Your task to perform on an android device: Show me productivity apps on the Play Store Image 0: 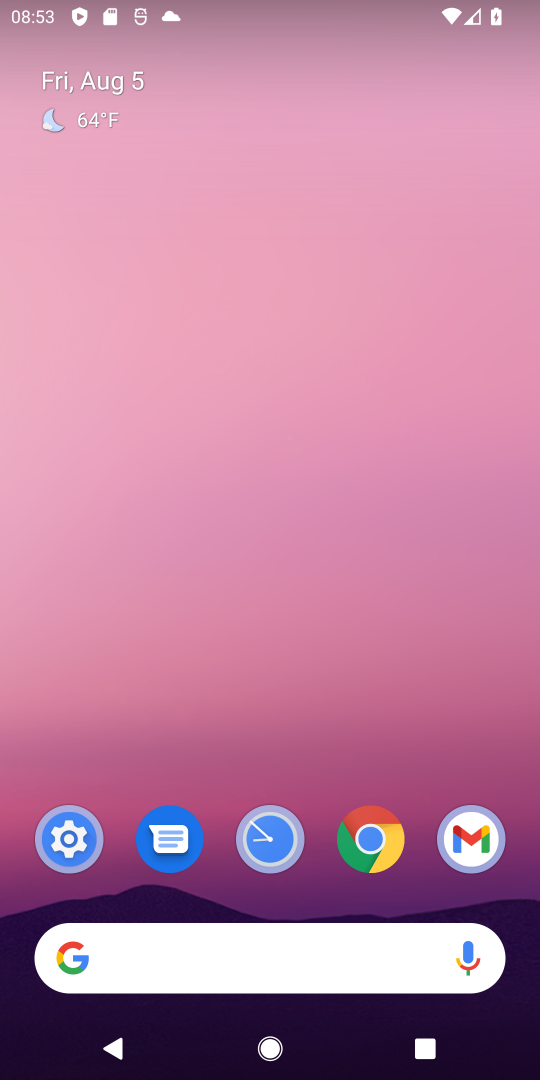
Step 0: drag from (325, 877) to (341, 159)
Your task to perform on an android device: Show me productivity apps on the Play Store Image 1: 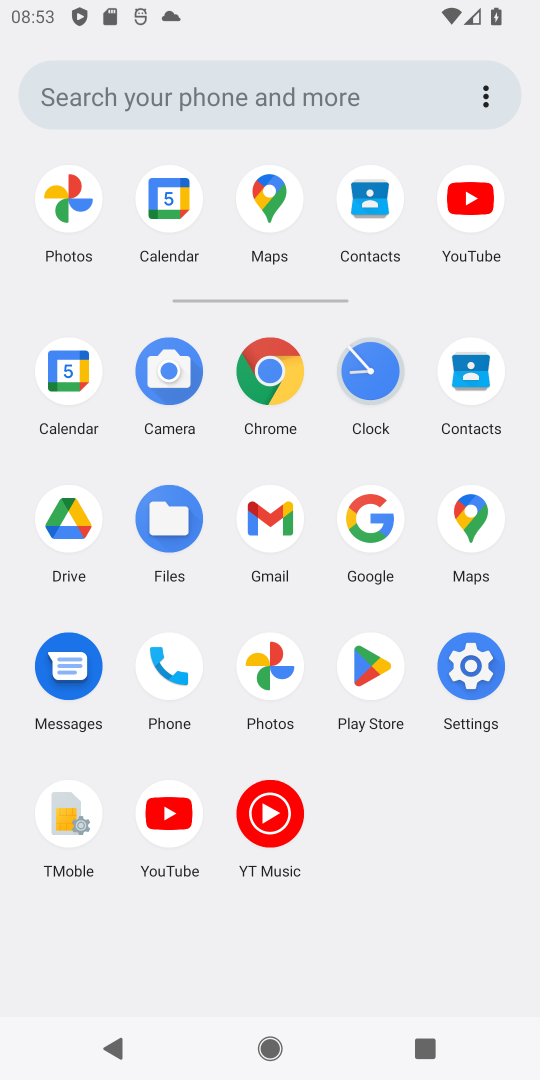
Step 1: click (361, 661)
Your task to perform on an android device: Show me productivity apps on the Play Store Image 2: 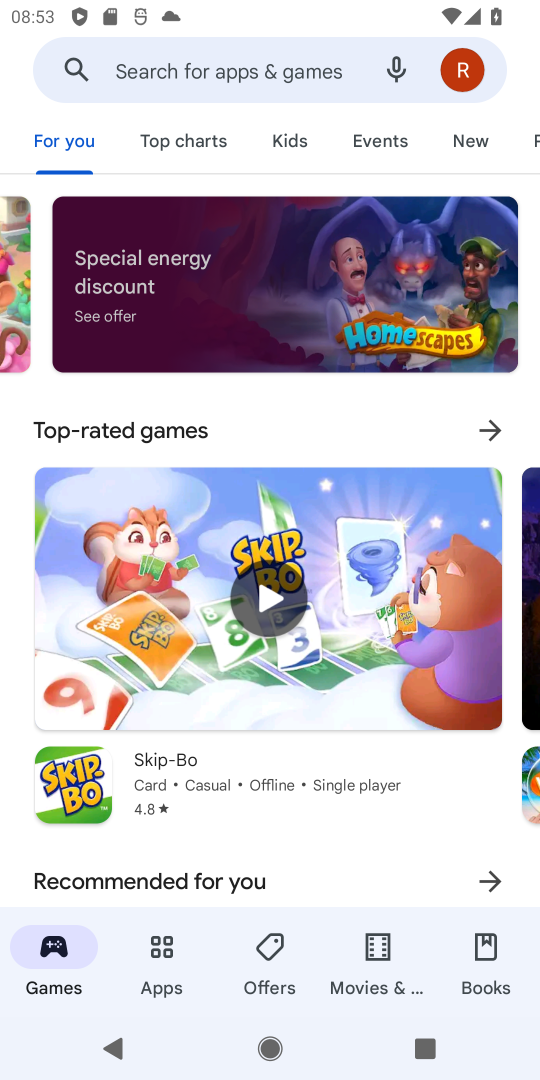
Step 2: click (154, 964)
Your task to perform on an android device: Show me productivity apps on the Play Store Image 3: 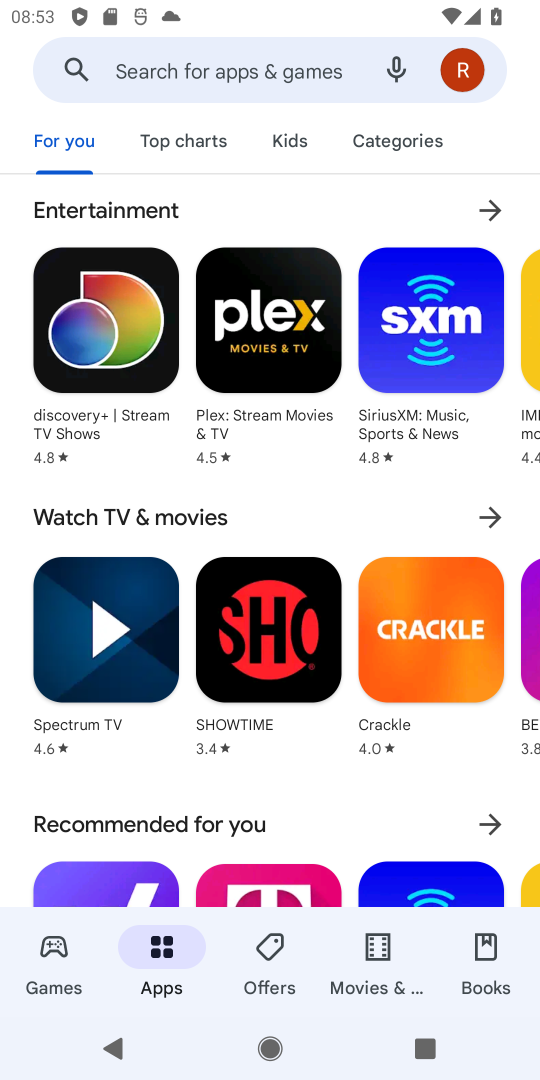
Step 3: click (397, 144)
Your task to perform on an android device: Show me productivity apps on the Play Store Image 4: 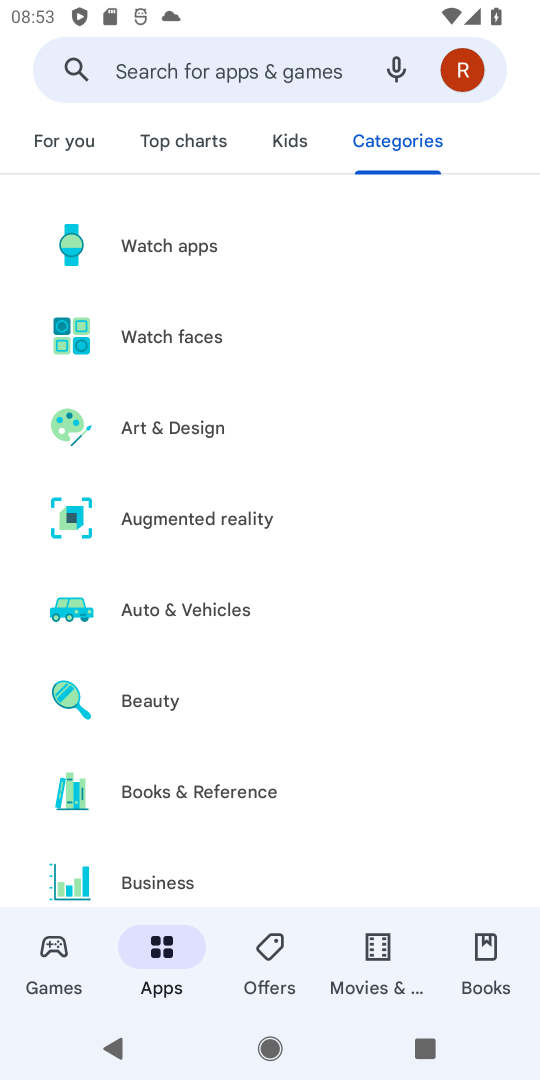
Step 4: drag from (168, 847) to (166, 532)
Your task to perform on an android device: Show me productivity apps on the Play Store Image 5: 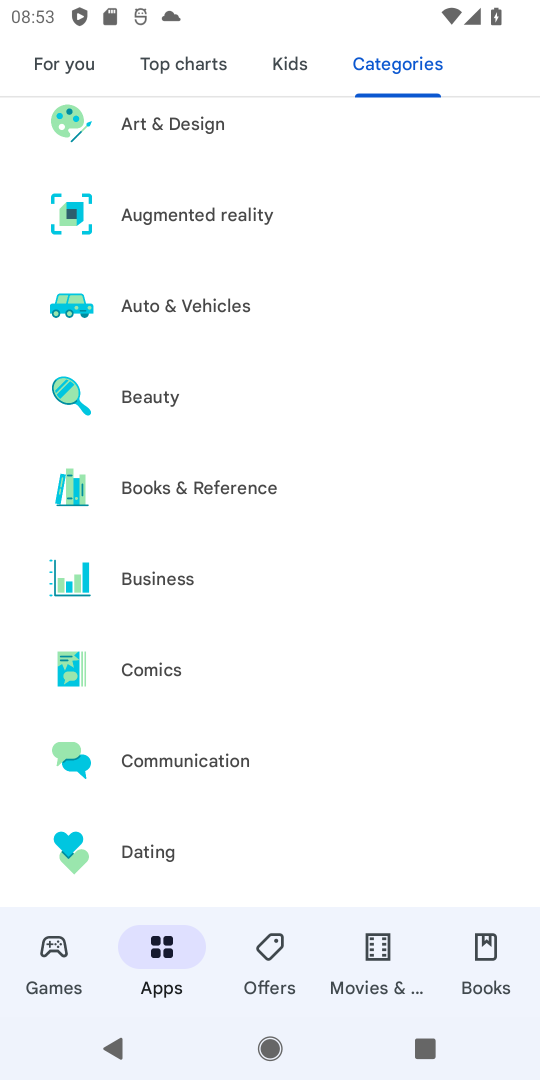
Step 5: drag from (166, 778) to (166, 280)
Your task to perform on an android device: Show me productivity apps on the Play Store Image 6: 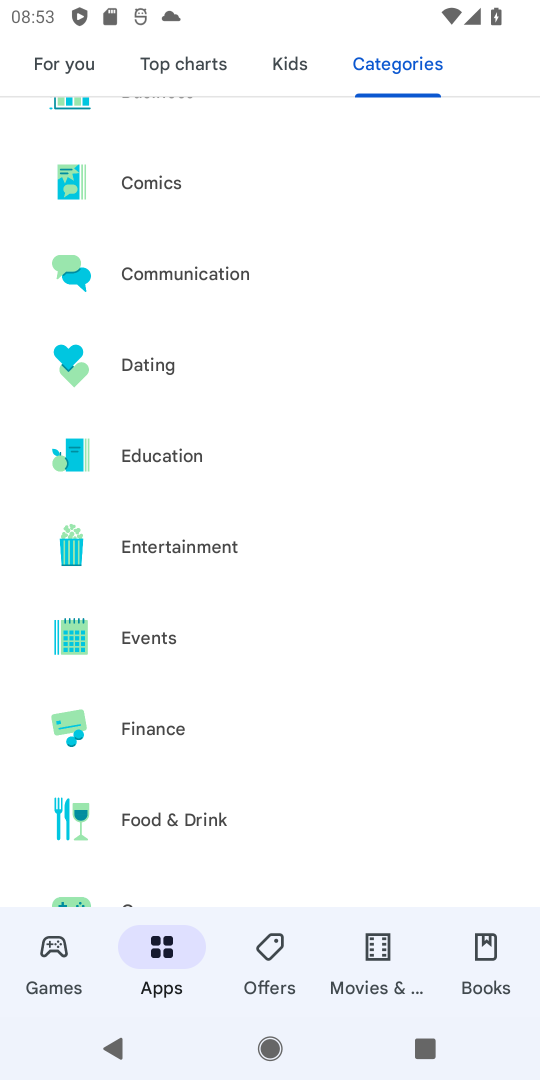
Step 6: drag from (180, 844) to (201, 260)
Your task to perform on an android device: Show me productivity apps on the Play Store Image 7: 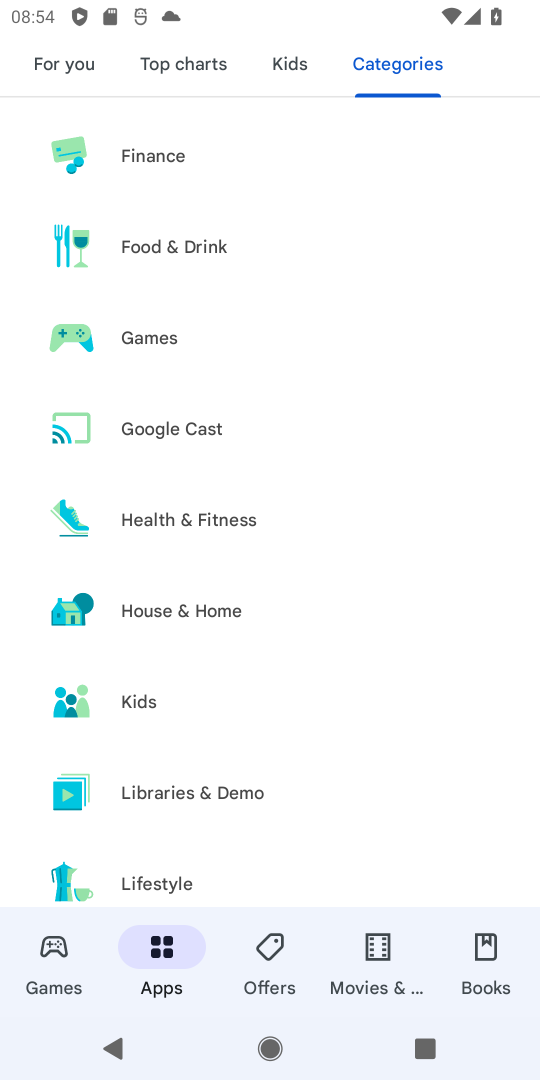
Step 7: drag from (171, 826) to (152, 332)
Your task to perform on an android device: Show me productivity apps on the Play Store Image 8: 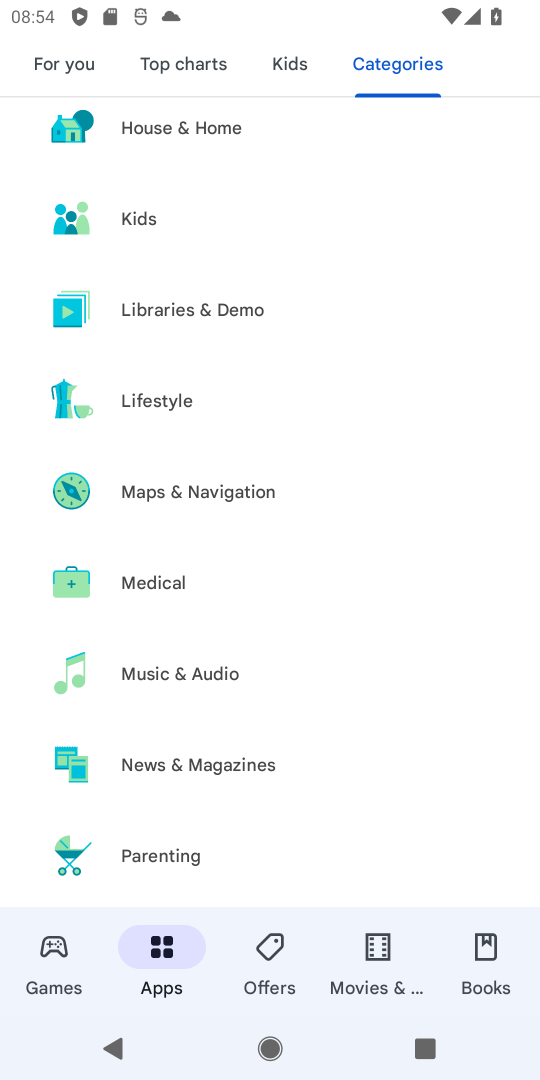
Step 8: drag from (223, 774) to (224, 284)
Your task to perform on an android device: Show me productivity apps on the Play Store Image 9: 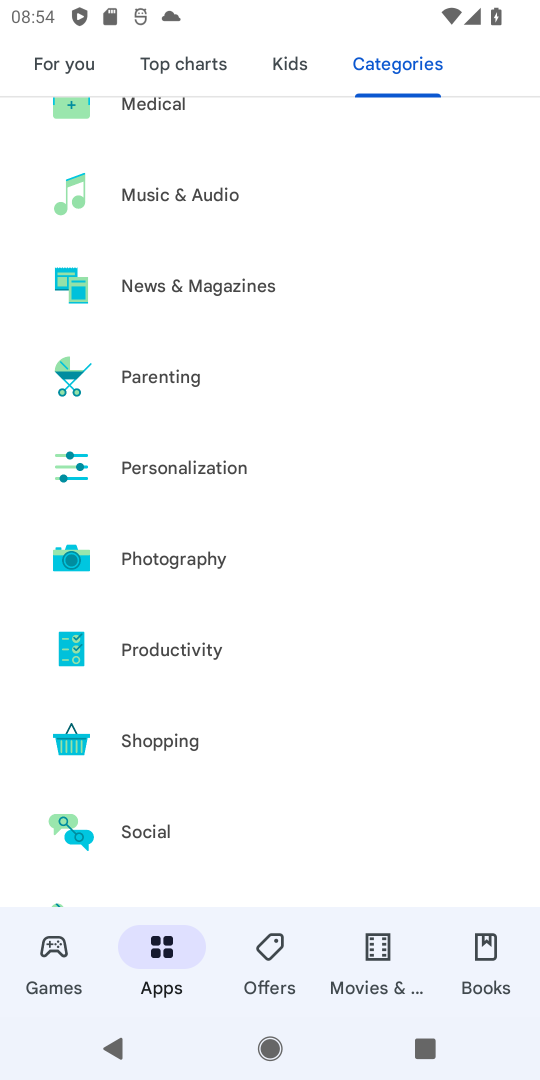
Step 9: click (164, 649)
Your task to perform on an android device: Show me productivity apps on the Play Store Image 10: 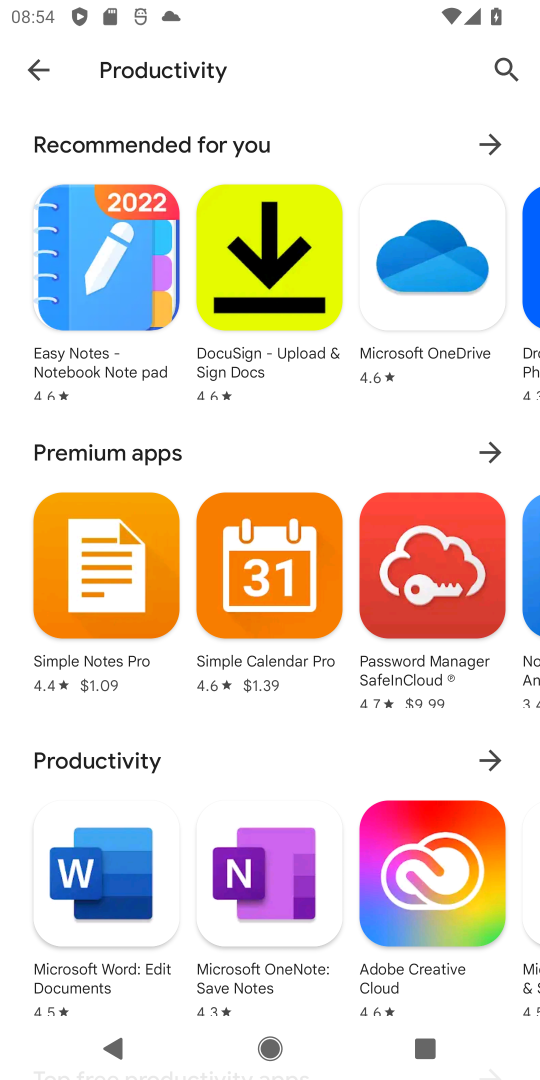
Step 10: task complete